Your task to perform on an android device: Go to Reddit.com Image 0: 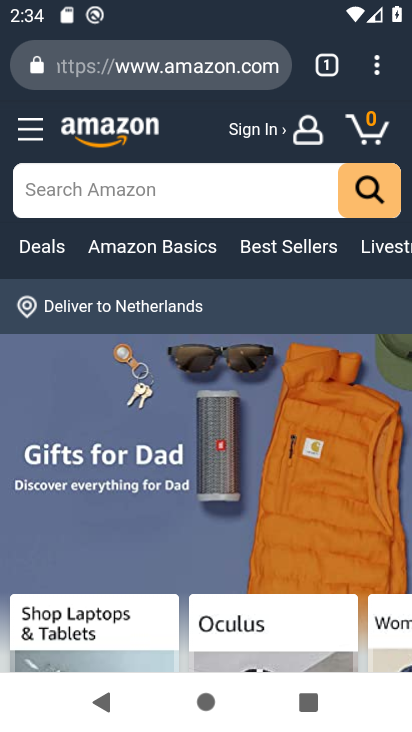
Step 0: press home button
Your task to perform on an android device: Go to Reddit.com Image 1: 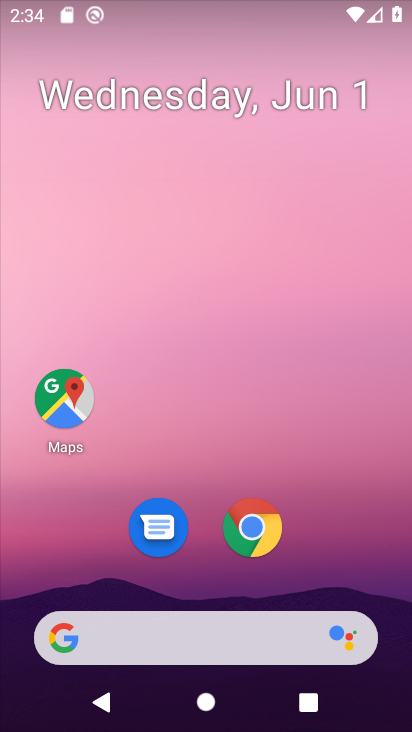
Step 1: click (243, 539)
Your task to perform on an android device: Go to Reddit.com Image 2: 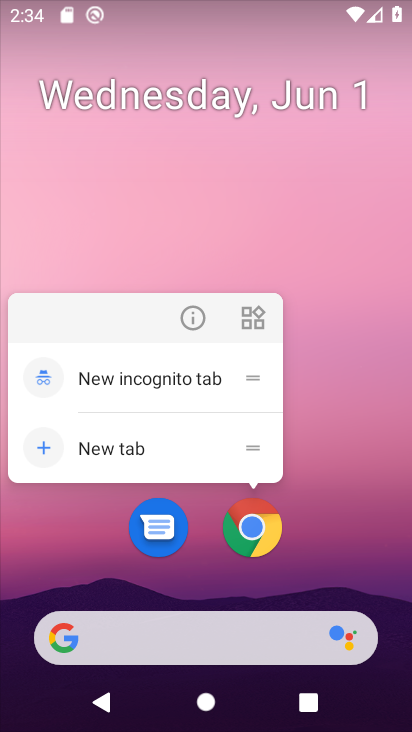
Step 2: click (248, 525)
Your task to perform on an android device: Go to Reddit.com Image 3: 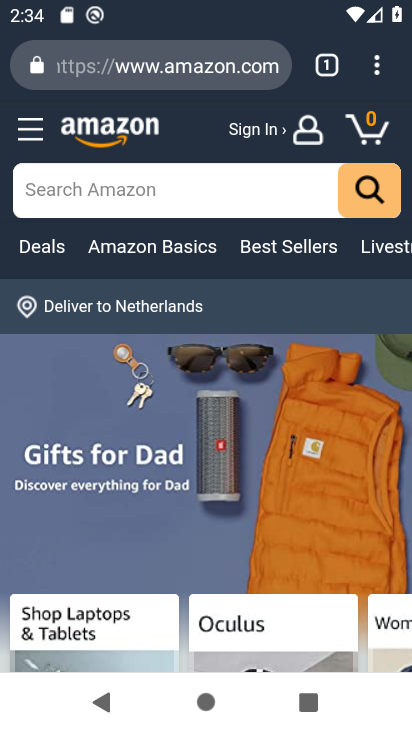
Step 3: click (162, 40)
Your task to perform on an android device: Go to Reddit.com Image 4: 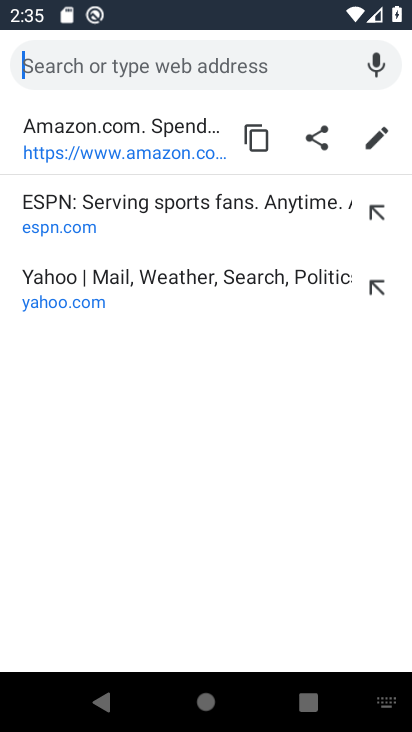
Step 4: type "reddit.com"
Your task to perform on an android device: Go to Reddit.com Image 5: 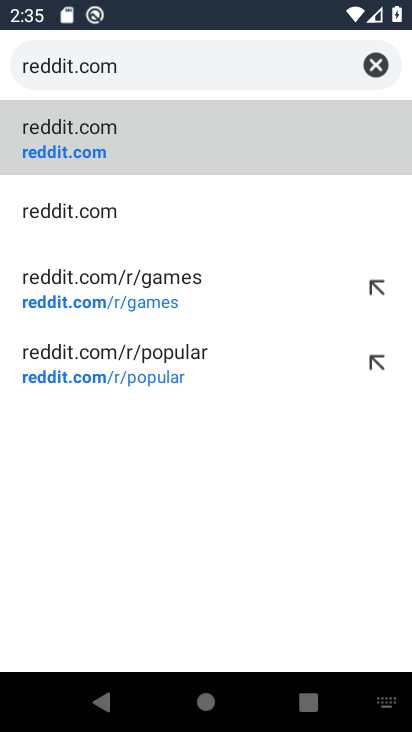
Step 5: click (73, 230)
Your task to perform on an android device: Go to Reddit.com Image 6: 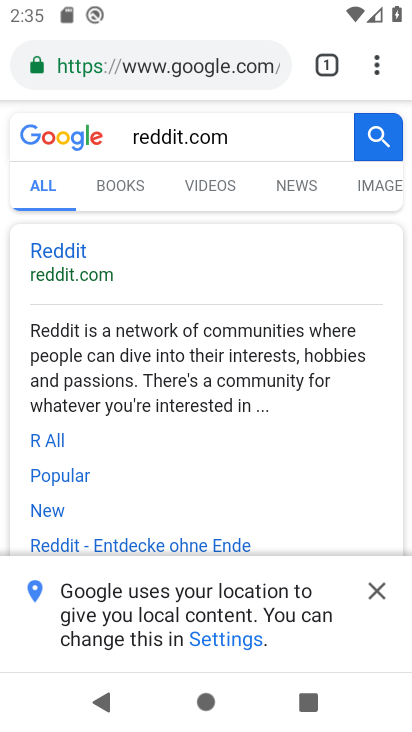
Step 6: task complete